Your task to perform on an android device: Show me some nice wallpapers for my desktop Image 0: 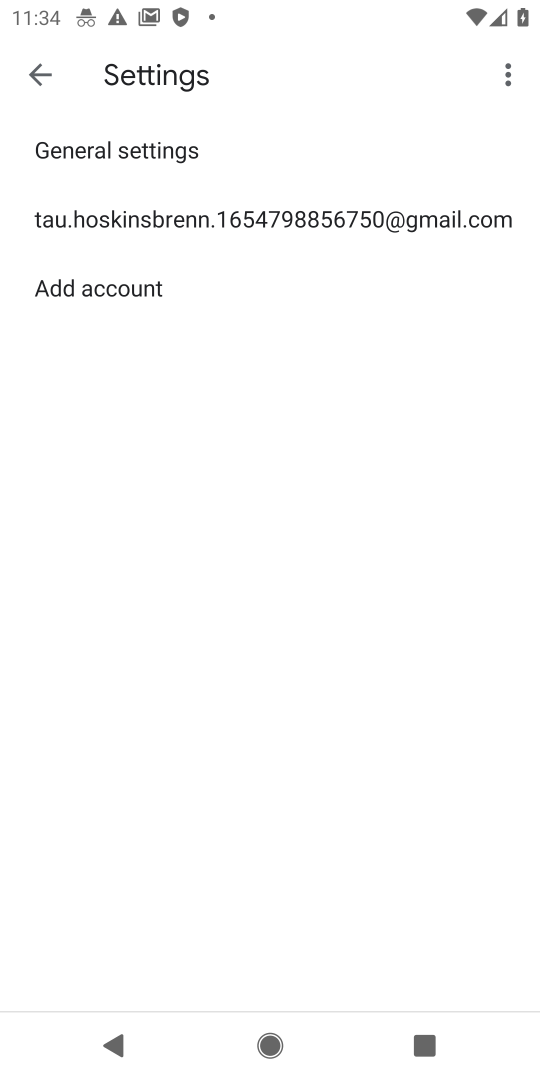
Step 0: press home button
Your task to perform on an android device: Show me some nice wallpapers for my desktop Image 1: 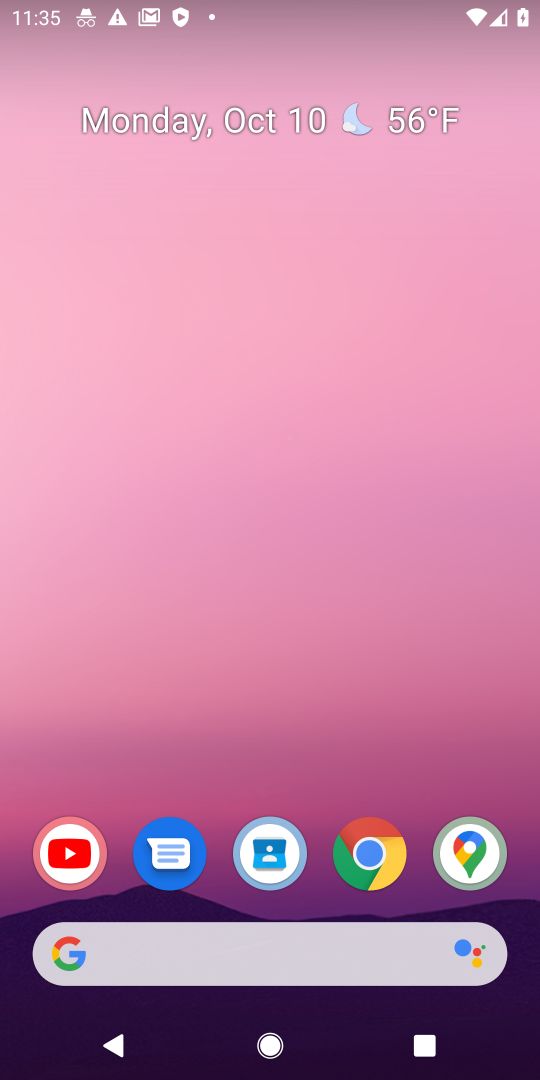
Step 1: click (242, 942)
Your task to perform on an android device: Show me some nice wallpapers for my desktop Image 2: 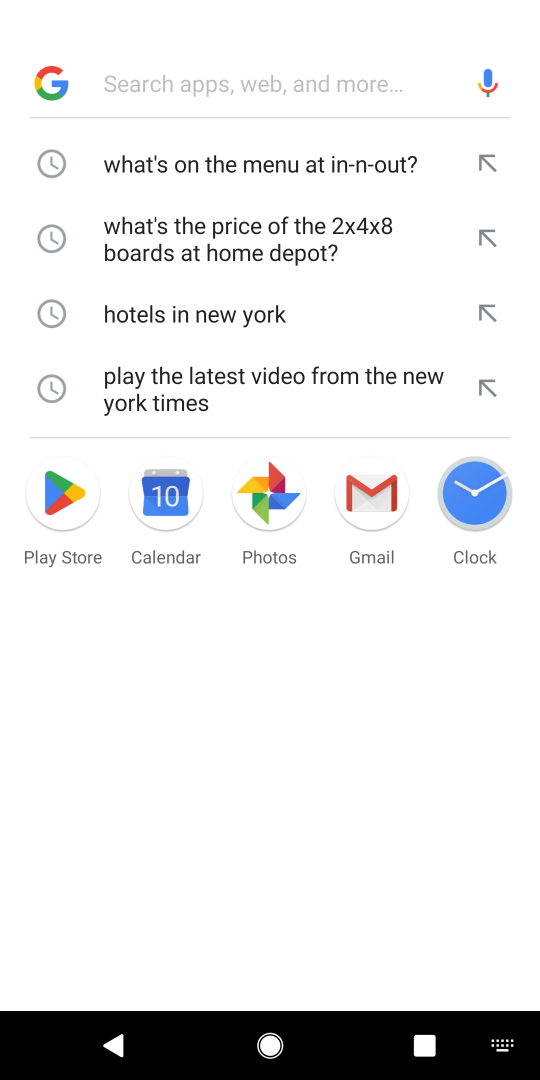
Step 2: type "Show me some nice wallpapers for my desktop"
Your task to perform on an android device: Show me some nice wallpapers for my desktop Image 3: 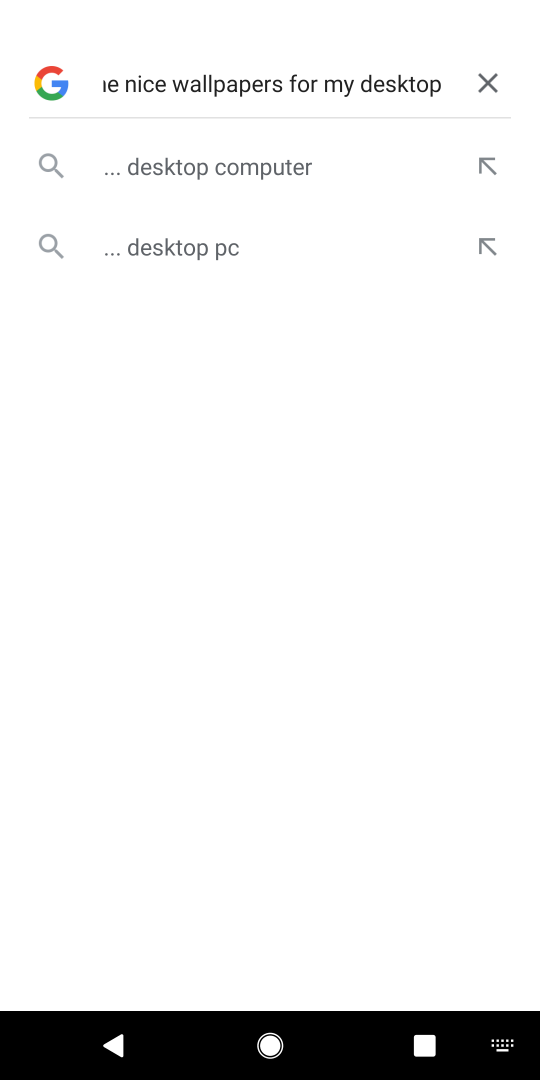
Step 3: press enter
Your task to perform on an android device: Show me some nice wallpapers for my desktop Image 4: 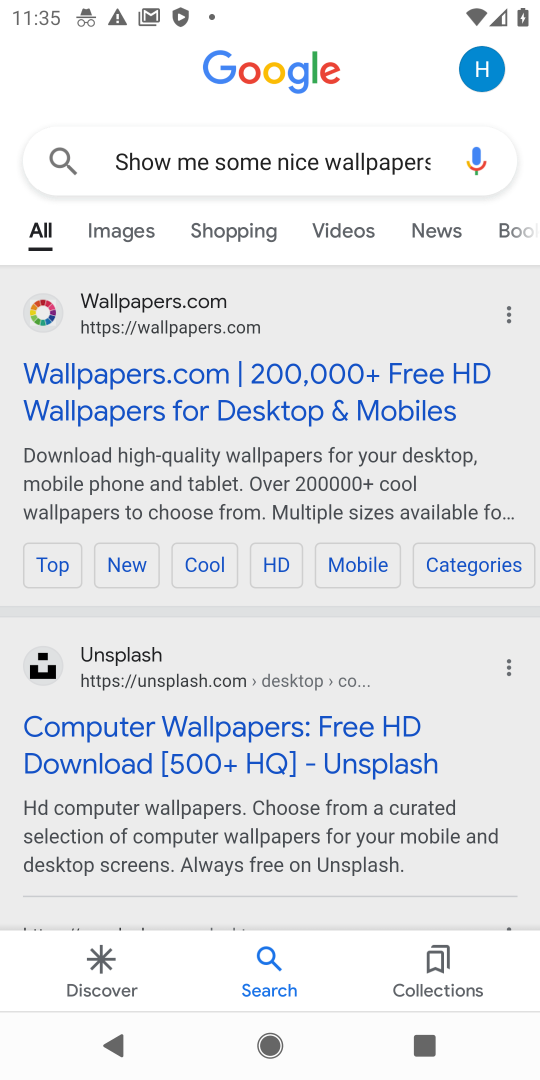
Step 4: drag from (360, 795) to (378, 655)
Your task to perform on an android device: Show me some nice wallpapers for my desktop Image 5: 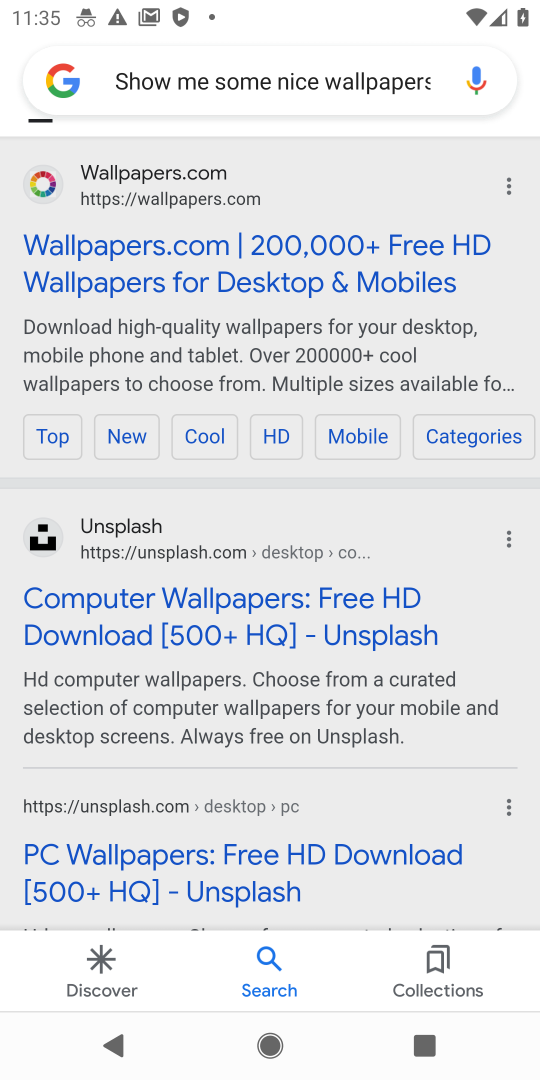
Step 5: click (320, 622)
Your task to perform on an android device: Show me some nice wallpapers for my desktop Image 6: 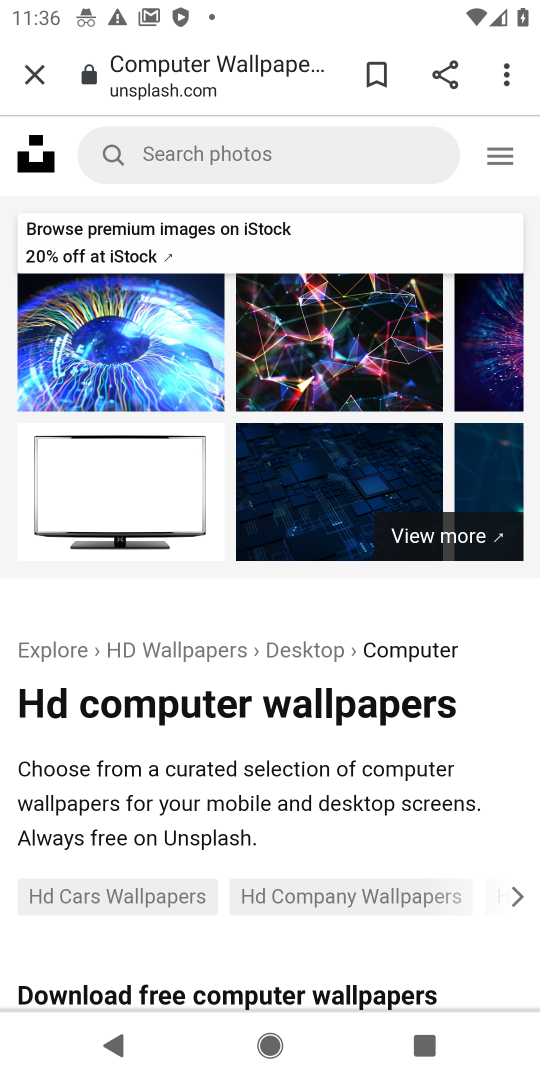
Step 6: task complete